Your task to perform on an android device: change your default location settings in chrome Image 0: 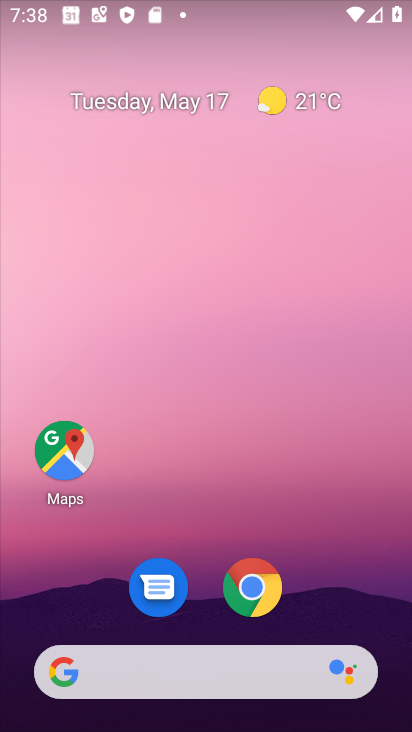
Step 0: drag from (367, 568) to (382, 153)
Your task to perform on an android device: change your default location settings in chrome Image 1: 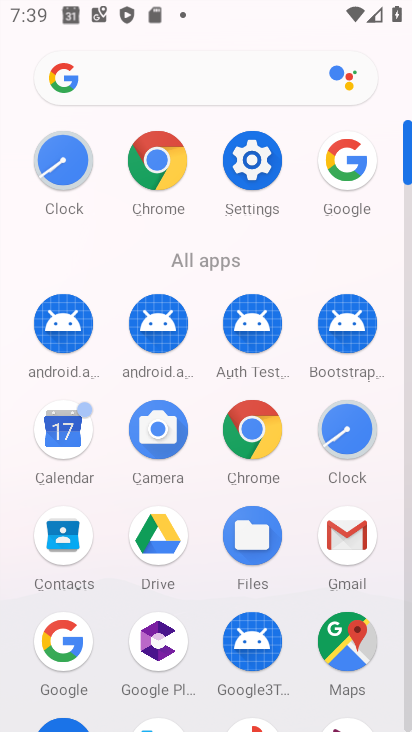
Step 1: click (260, 444)
Your task to perform on an android device: change your default location settings in chrome Image 2: 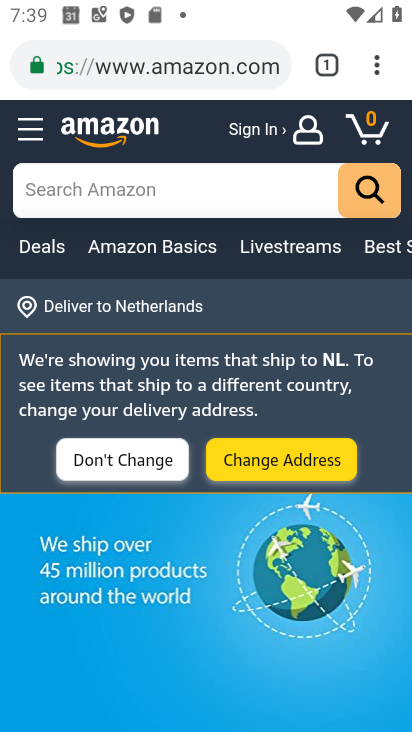
Step 2: click (376, 73)
Your task to perform on an android device: change your default location settings in chrome Image 3: 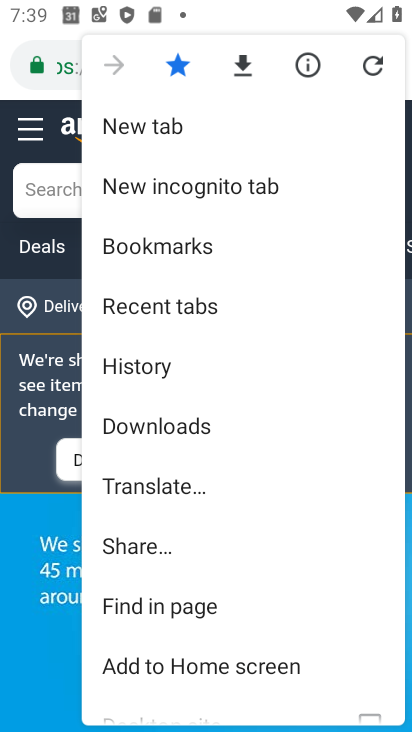
Step 3: drag from (328, 583) to (339, 464)
Your task to perform on an android device: change your default location settings in chrome Image 4: 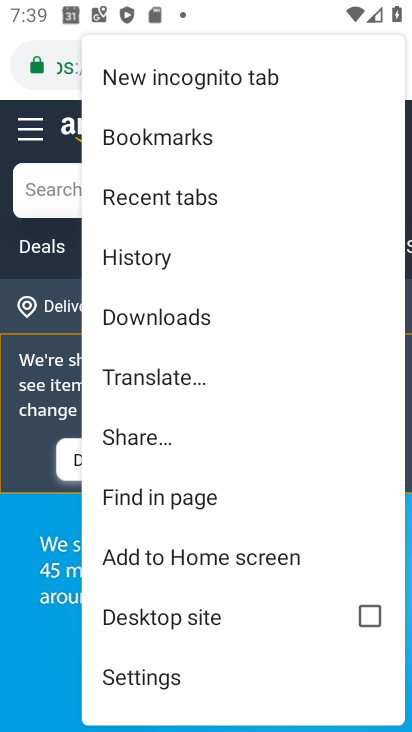
Step 4: drag from (301, 634) to (326, 468)
Your task to perform on an android device: change your default location settings in chrome Image 5: 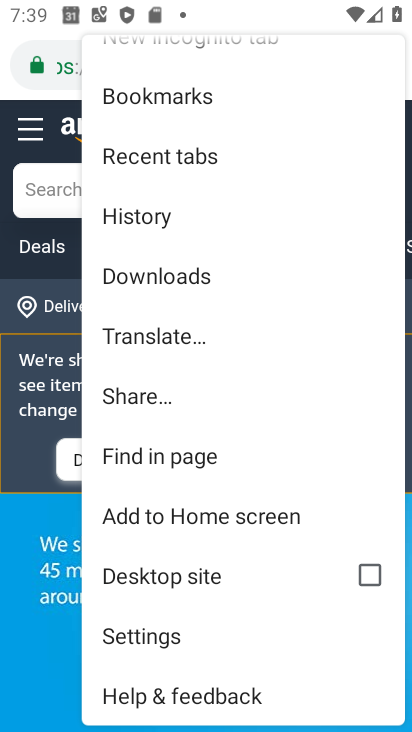
Step 5: click (211, 639)
Your task to perform on an android device: change your default location settings in chrome Image 6: 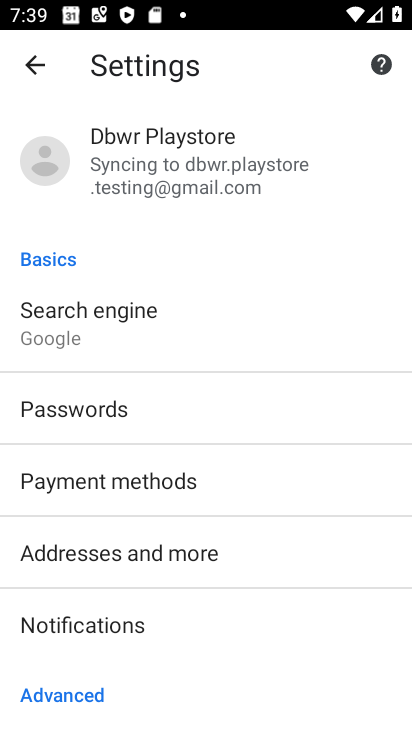
Step 6: drag from (265, 632) to (281, 531)
Your task to perform on an android device: change your default location settings in chrome Image 7: 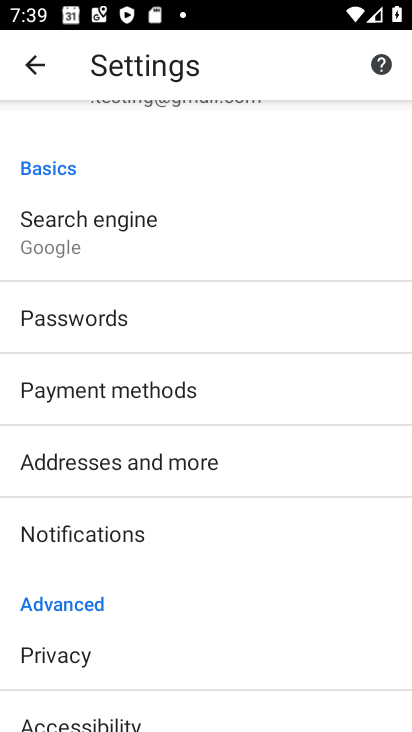
Step 7: drag from (294, 659) to (296, 515)
Your task to perform on an android device: change your default location settings in chrome Image 8: 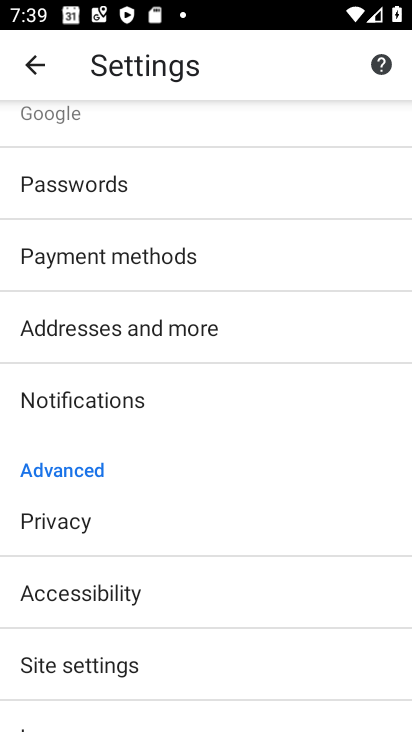
Step 8: drag from (321, 676) to (322, 526)
Your task to perform on an android device: change your default location settings in chrome Image 9: 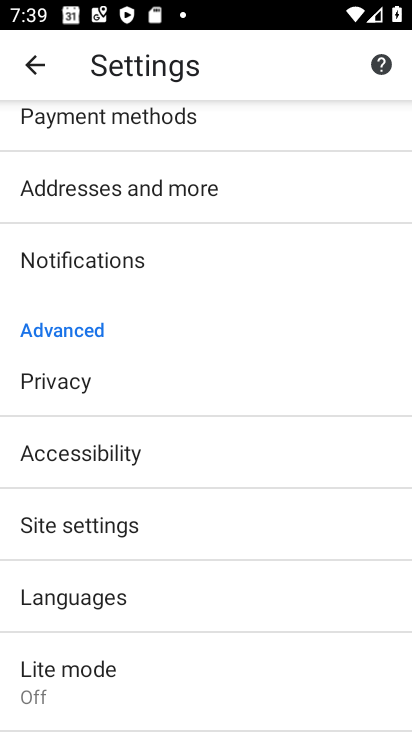
Step 9: drag from (298, 656) to (305, 504)
Your task to perform on an android device: change your default location settings in chrome Image 10: 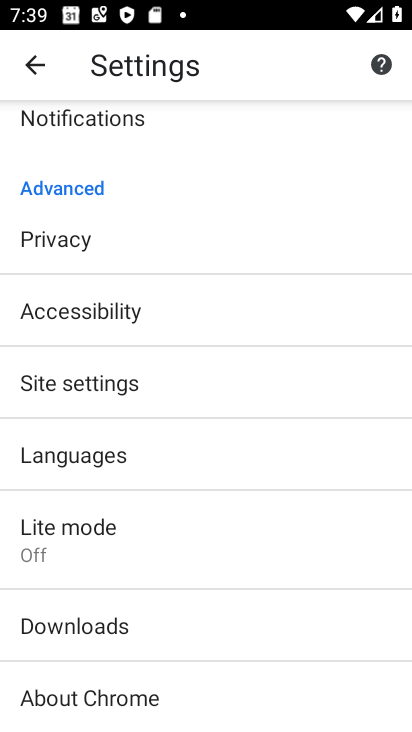
Step 10: drag from (311, 679) to (308, 515)
Your task to perform on an android device: change your default location settings in chrome Image 11: 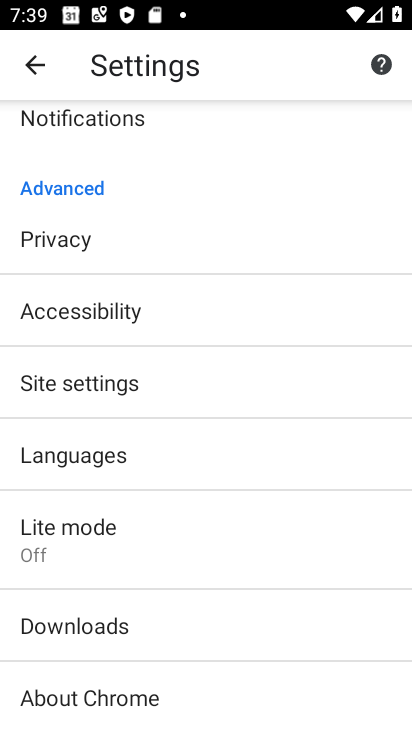
Step 11: click (274, 390)
Your task to perform on an android device: change your default location settings in chrome Image 12: 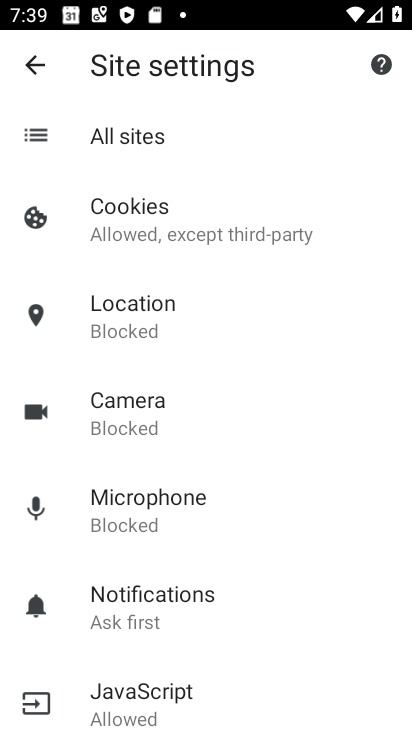
Step 12: drag from (313, 569) to (313, 446)
Your task to perform on an android device: change your default location settings in chrome Image 13: 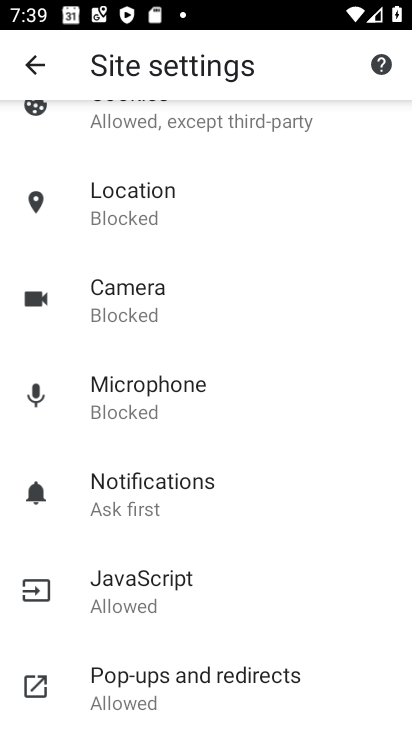
Step 13: drag from (336, 645) to (329, 484)
Your task to perform on an android device: change your default location settings in chrome Image 14: 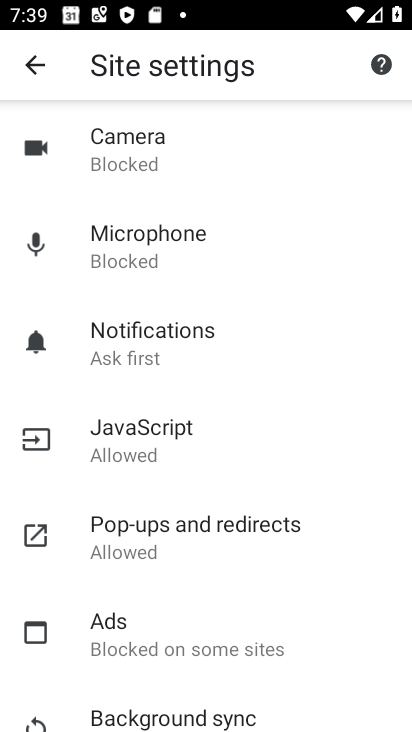
Step 14: drag from (352, 664) to (360, 493)
Your task to perform on an android device: change your default location settings in chrome Image 15: 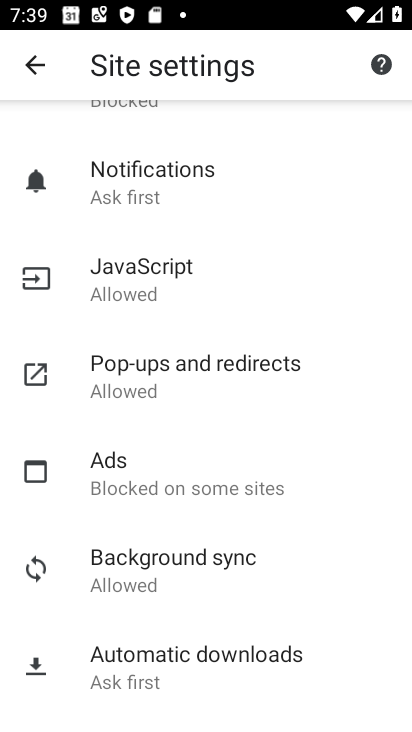
Step 15: drag from (362, 666) to (362, 544)
Your task to perform on an android device: change your default location settings in chrome Image 16: 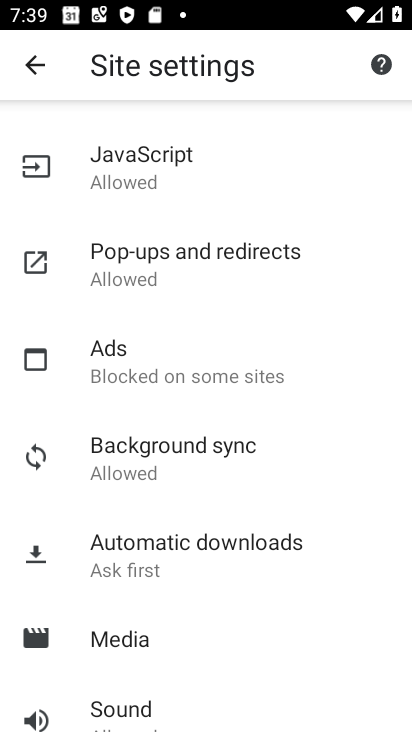
Step 16: drag from (357, 276) to (349, 421)
Your task to perform on an android device: change your default location settings in chrome Image 17: 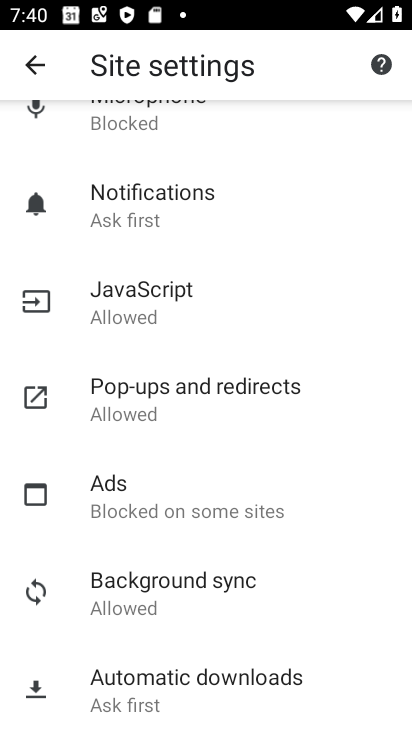
Step 17: drag from (349, 320) to (348, 445)
Your task to perform on an android device: change your default location settings in chrome Image 18: 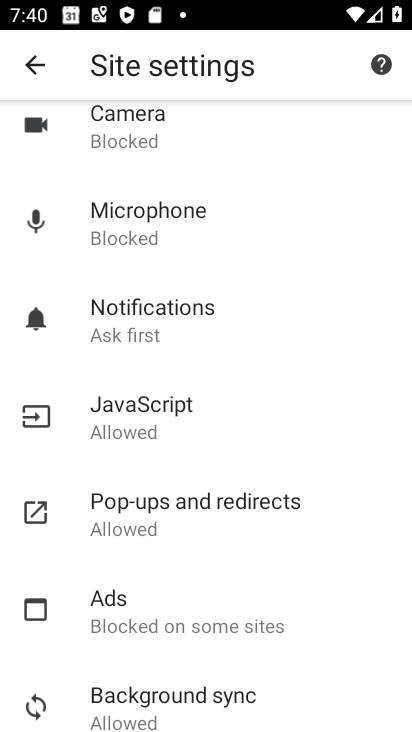
Step 18: drag from (344, 240) to (325, 412)
Your task to perform on an android device: change your default location settings in chrome Image 19: 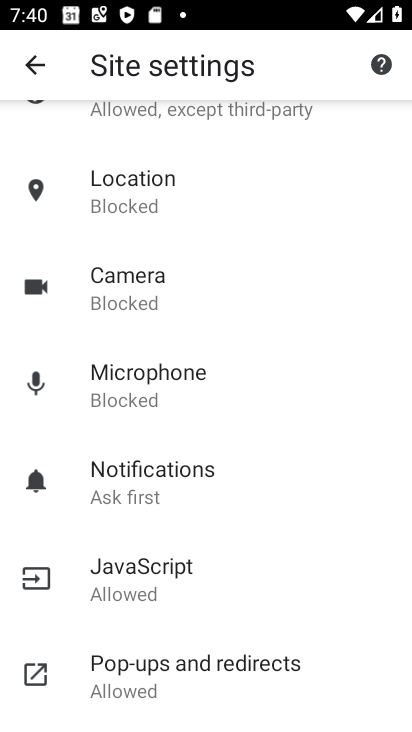
Step 19: click (213, 210)
Your task to perform on an android device: change your default location settings in chrome Image 20: 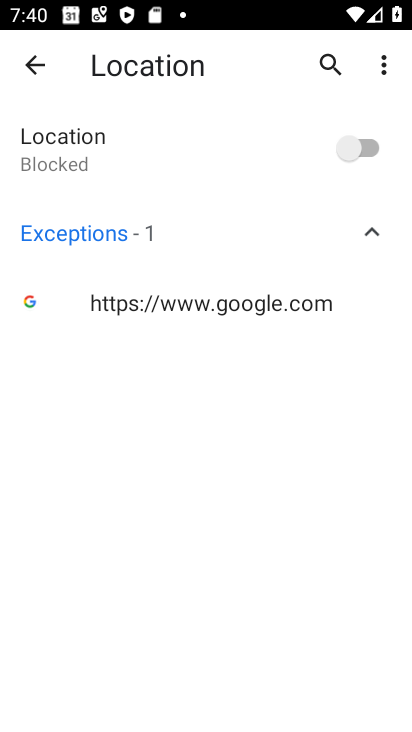
Step 20: click (330, 145)
Your task to perform on an android device: change your default location settings in chrome Image 21: 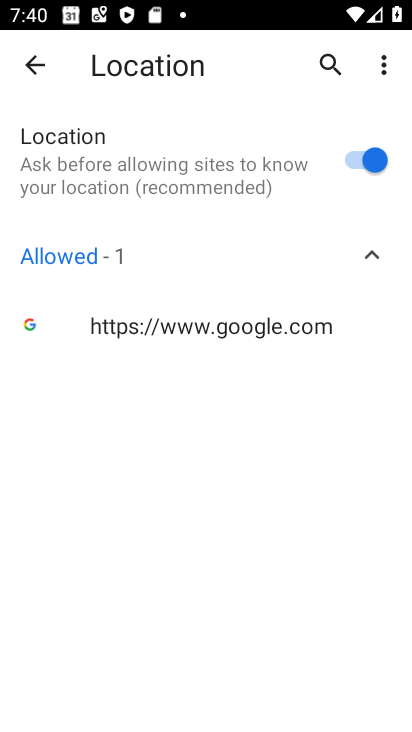
Step 21: task complete